Your task to perform on an android device: make emails show in primary in the gmail app Image 0: 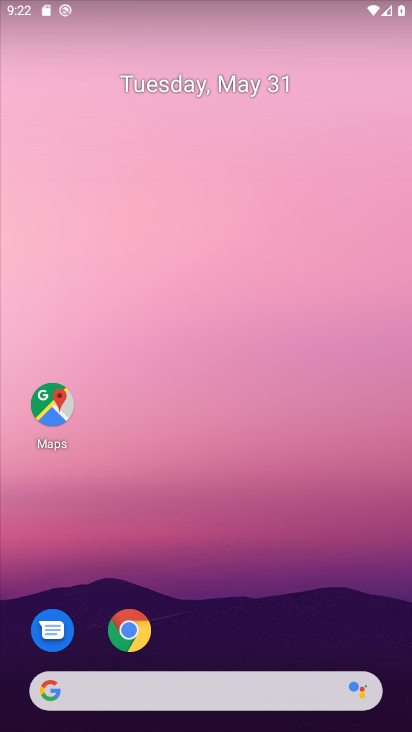
Step 0: drag from (216, 637) to (185, 174)
Your task to perform on an android device: make emails show in primary in the gmail app Image 1: 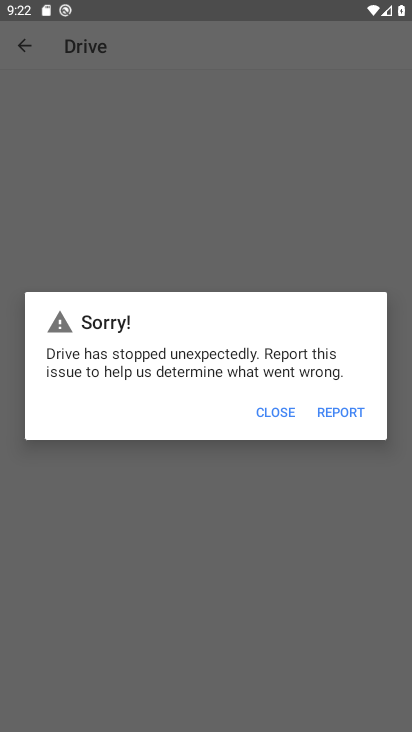
Step 1: press home button
Your task to perform on an android device: make emails show in primary in the gmail app Image 2: 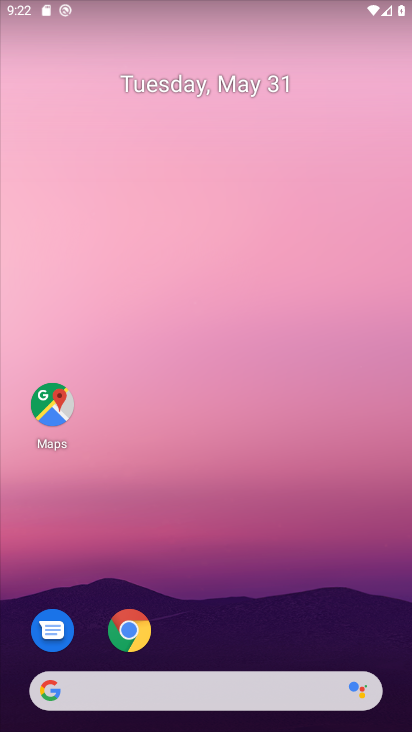
Step 2: drag from (249, 644) to (220, 172)
Your task to perform on an android device: make emails show in primary in the gmail app Image 3: 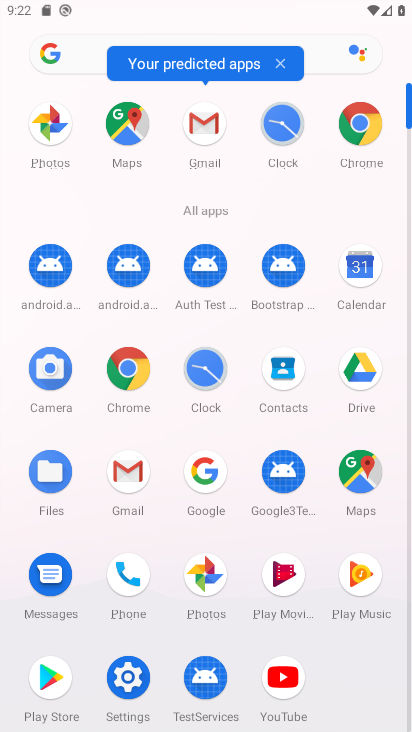
Step 3: click (198, 124)
Your task to perform on an android device: make emails show in primary in the gmail app Image 4: 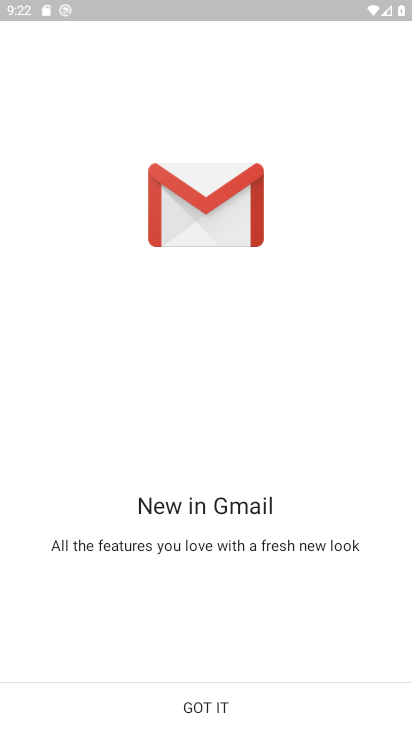
Step 4: click (207, 705)
Your task to perform on an android device: make emails show in primary in the gmail app Image 5: 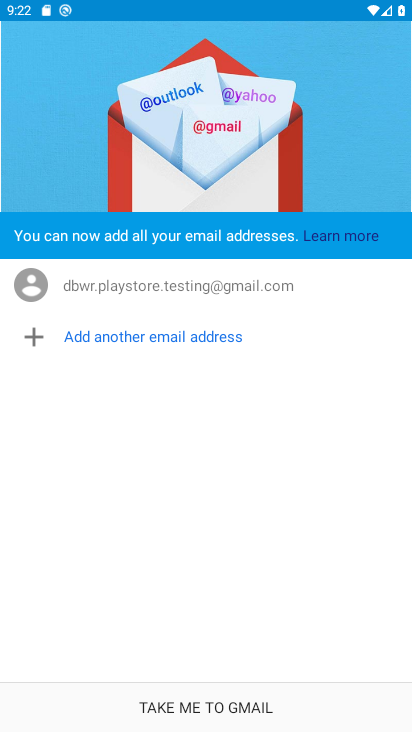
Step 5: click (207, 705)
Your task to perform on an android device: make emails show in primary in the gmail app Image 6: 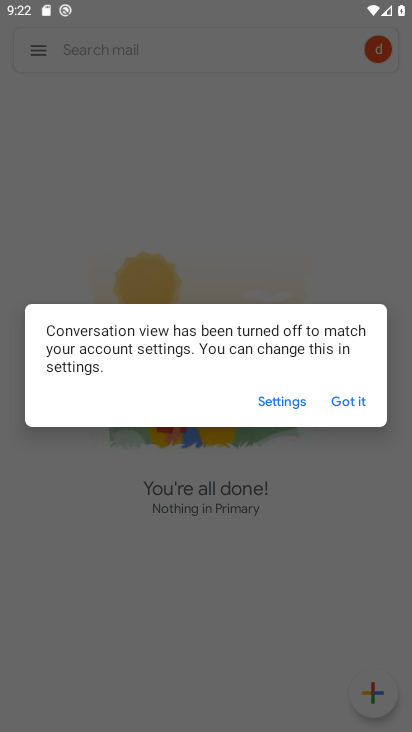
Step 6: click (356, 396)
Your task to perform on an android device: make emails show in primary in the gmail app Image 7: 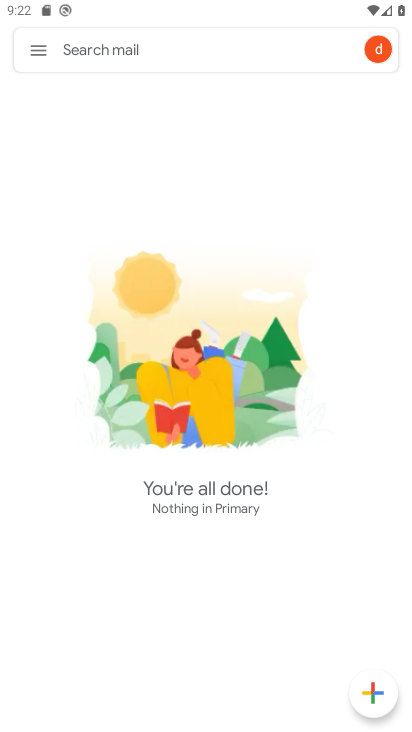
Step 7: click (39, 60)
Your task to perform on an android device: make emails show in primary in the gmail app Image 8: 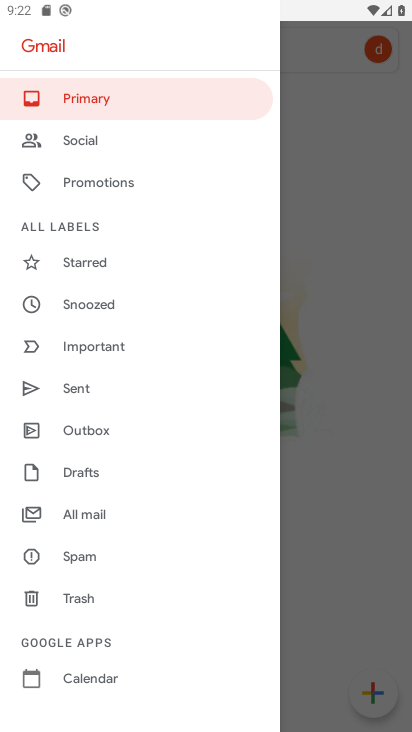
Step 8: drag from (92, 697) to (104, 229)
Your task to perform on an android device: make emails show in primary in the gmail app Image 9: 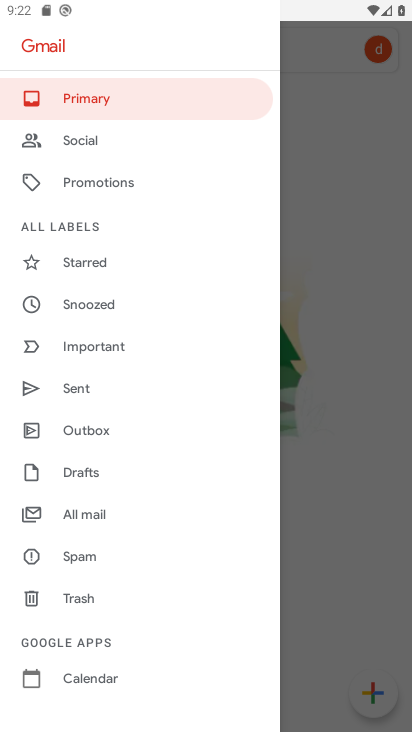
Step 9: drag from (92, 636) to (99, 234)
Your task to perform on an android device: make emails show in primary in the gmail app Image 10: 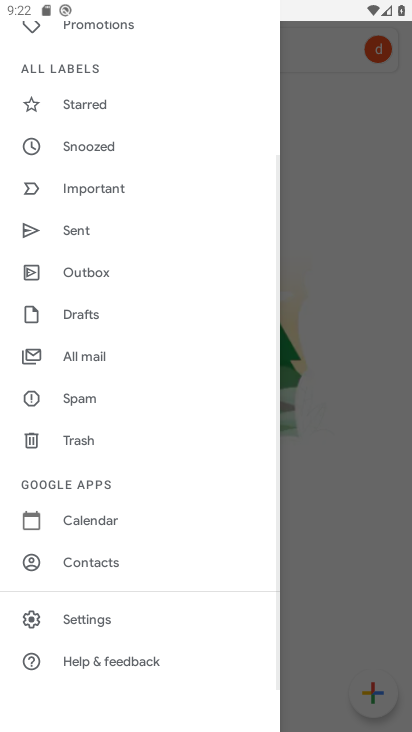
Step 10: click (119, 622)
Your task to perform on an android device: make emails show in primary in the gmail app Image 11: 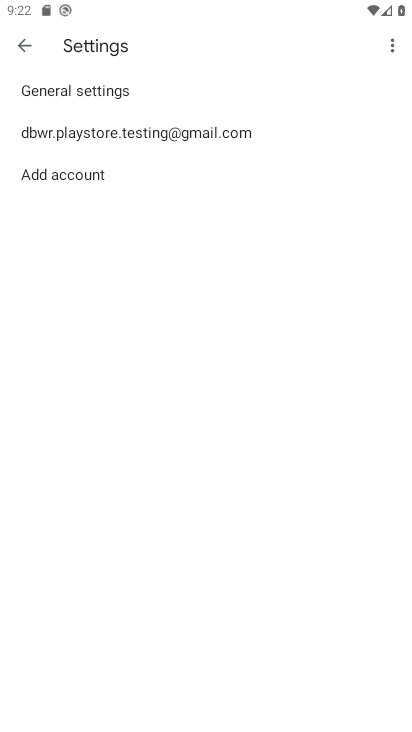
Step 11: click (253, 138)
Your task to perform on an android device: make emails show in primary in the gmail app Image 12: 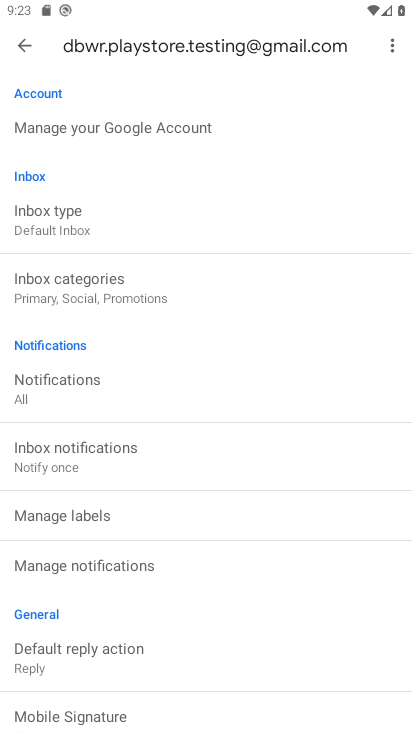
Step 12: task complete